Your task to perform on an android device: What's on my calendar tomorrow? Image 0: 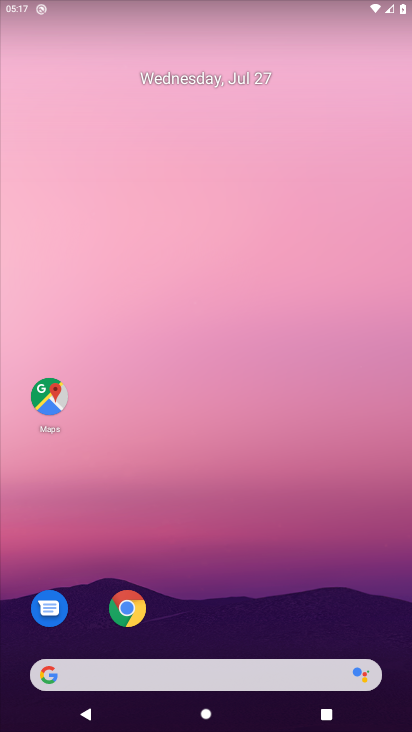
Step 0: press home button
Your task to perform on an android device: What's on my calendar tomorrow? Image 1: 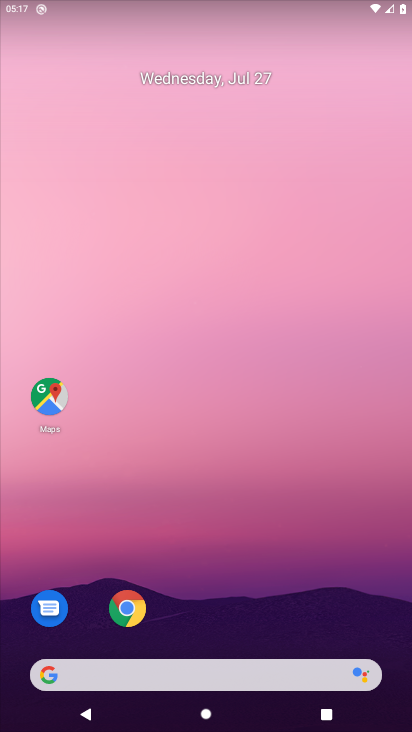
Step 1: press back button
Your task to perform on an android device: What's on my calendar tomorrow? Image 2: 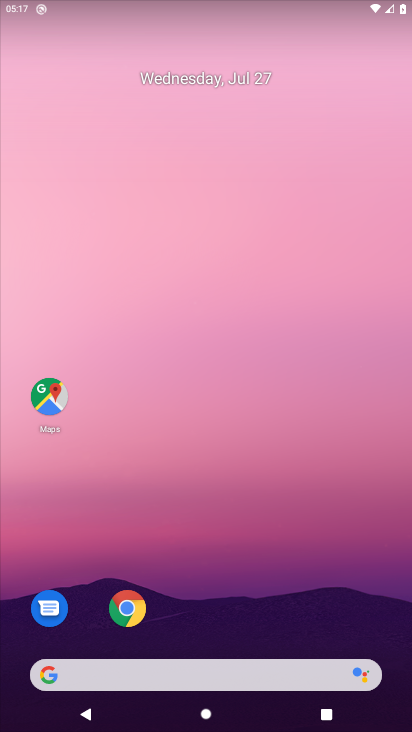
Step 2: press enter
Your task to perform on an android device: What's on my calendar tomorrow? Image 3: 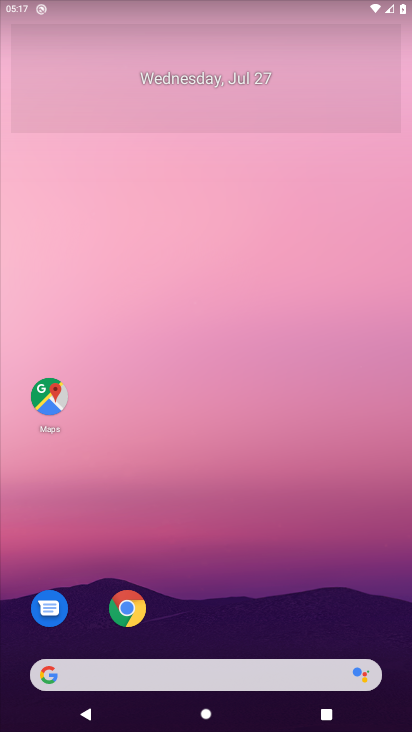
Step 3: press home button
Your task to perform on an android device: What's on my calendar tomorrow? Image 4: 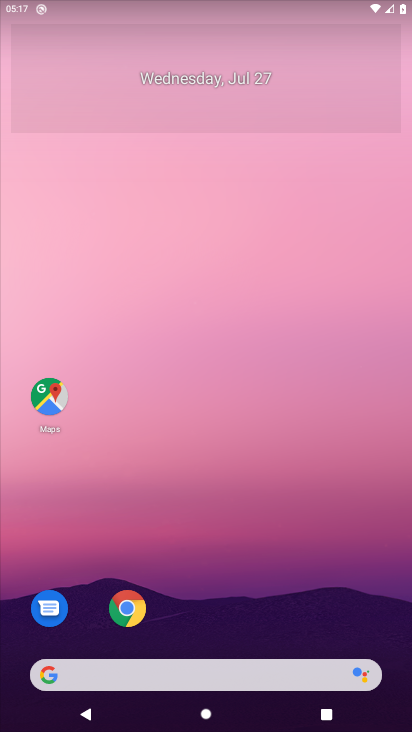
Step 4: drag from (220, 620) to (257, 423)
Your task to perform on an android device: What's on my calendar tomorrow? Image 5: 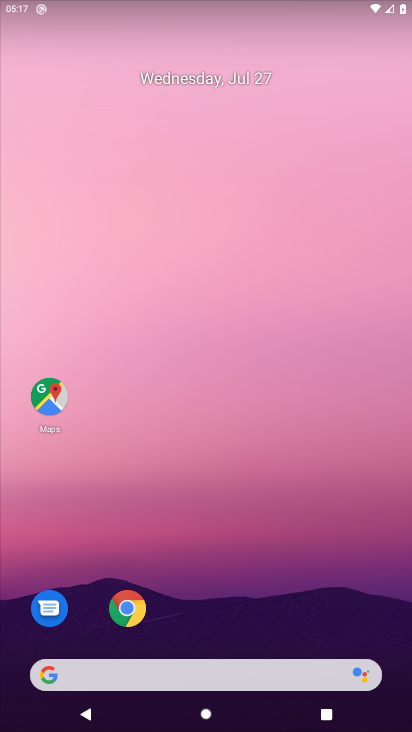
Step 5: click (250, 607)
Your task to perform on an android device: What's on my calendar tomorrow? Image 6: 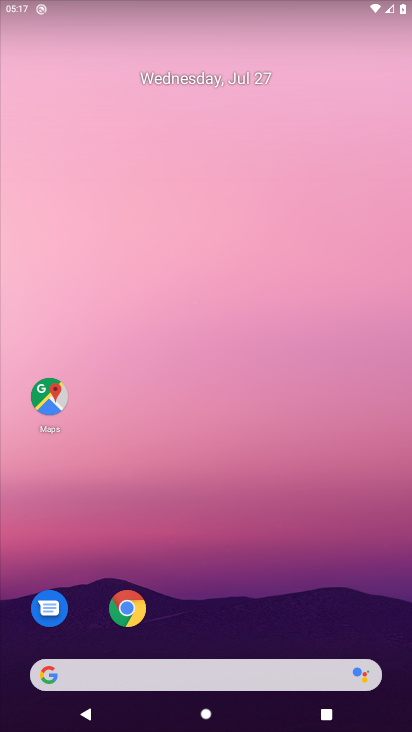
Step 6: drag from (250, 607) to (390, 52)
Your task to perform on an android device: What's on my calendar tomorrow? Image 7: 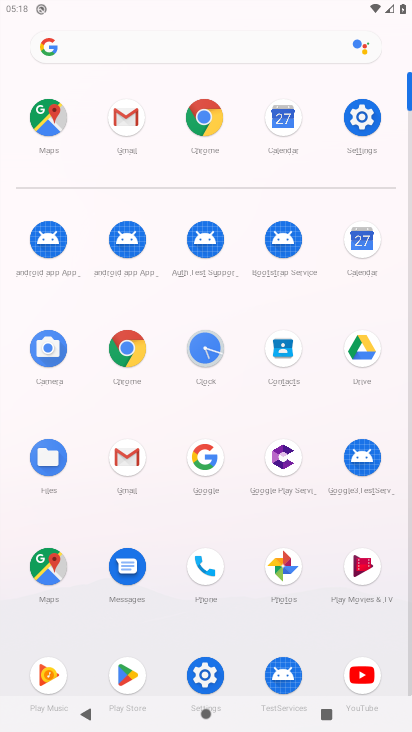
Step 7: click (364, 246)
Your task to perform on an android device: What's on my calendar tomorrow? Image 8: 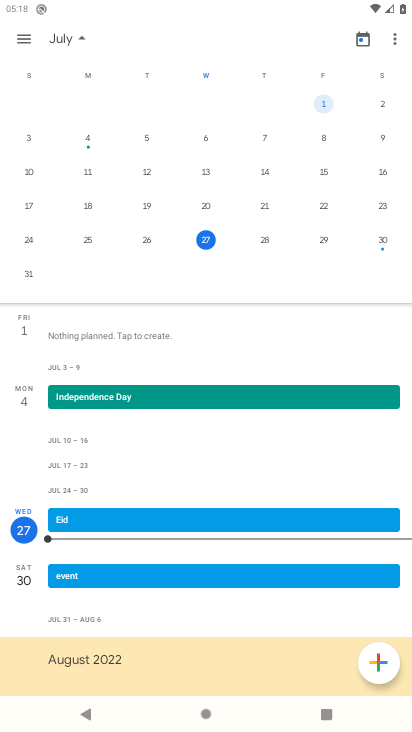
Step 8: click (265, 242)
Your task to perform on an android device: What's on my calendar tomorrow? Image 9: 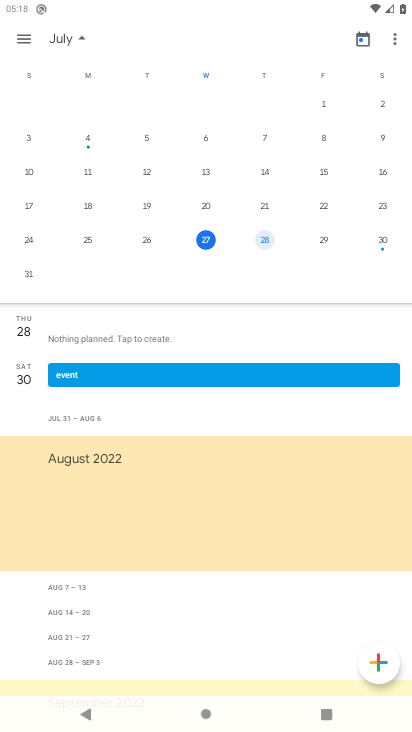
Step 9: task complete